Your task to perform on an android device: Toggle notifications for the Google Photos app Image 0: 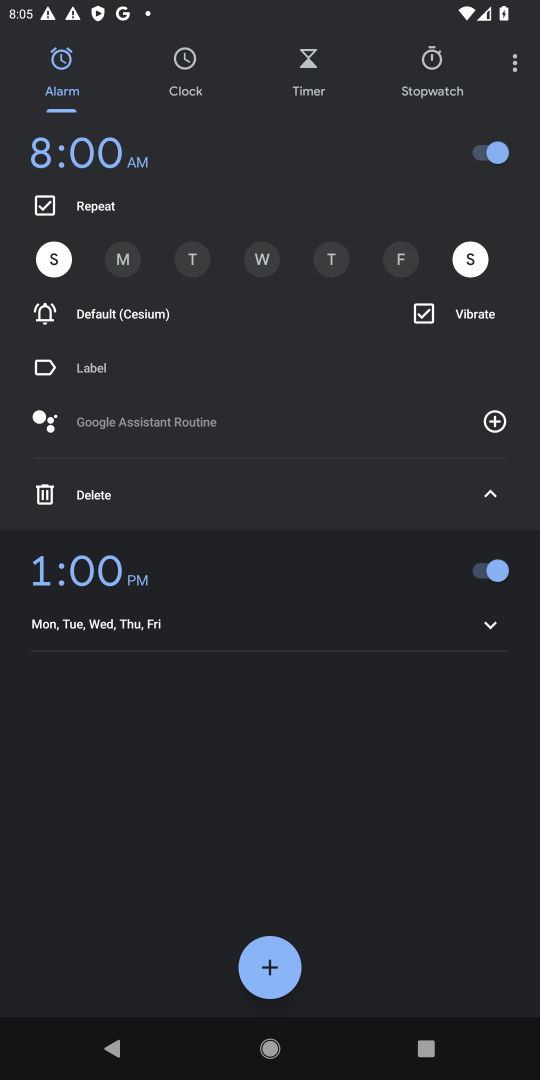
Step 0: press home button
Your task to perform on an android device: Toggle notifications for the Google Photos app Image 1: 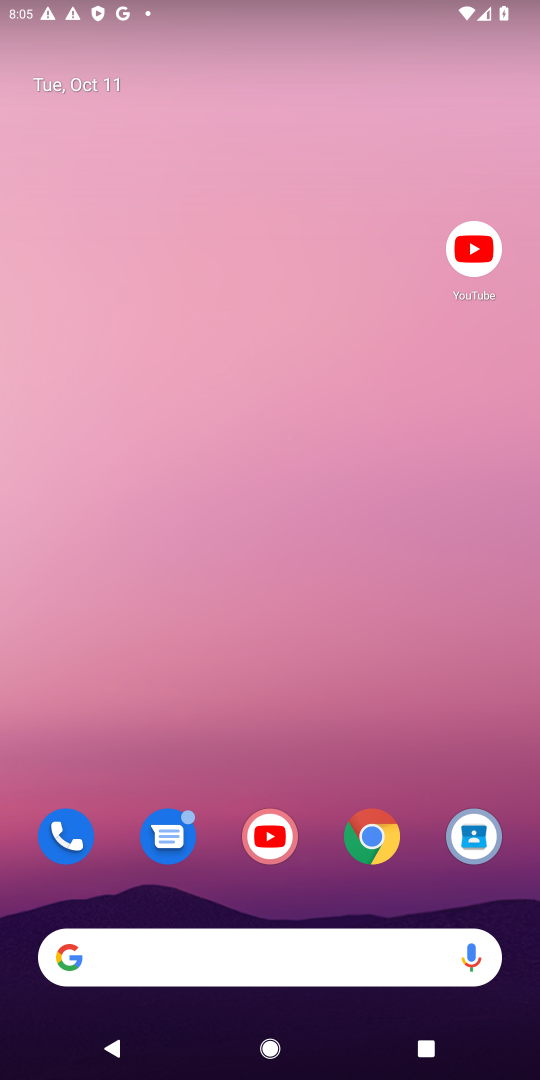
Step 1: drag from (332, 952) to (259, 120)
Your task to perform on an android device: Toggle notifications for the Google Photos app Image 2: 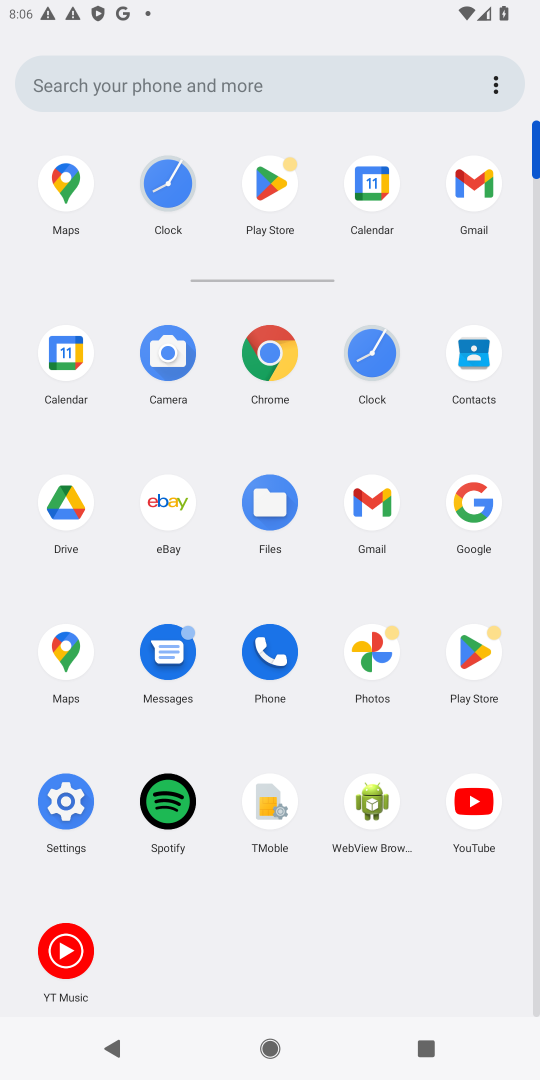
Step 2: click (372, 665)
Your task to perform on an android device: Toggle notifications for the Google Photos app Image 3: 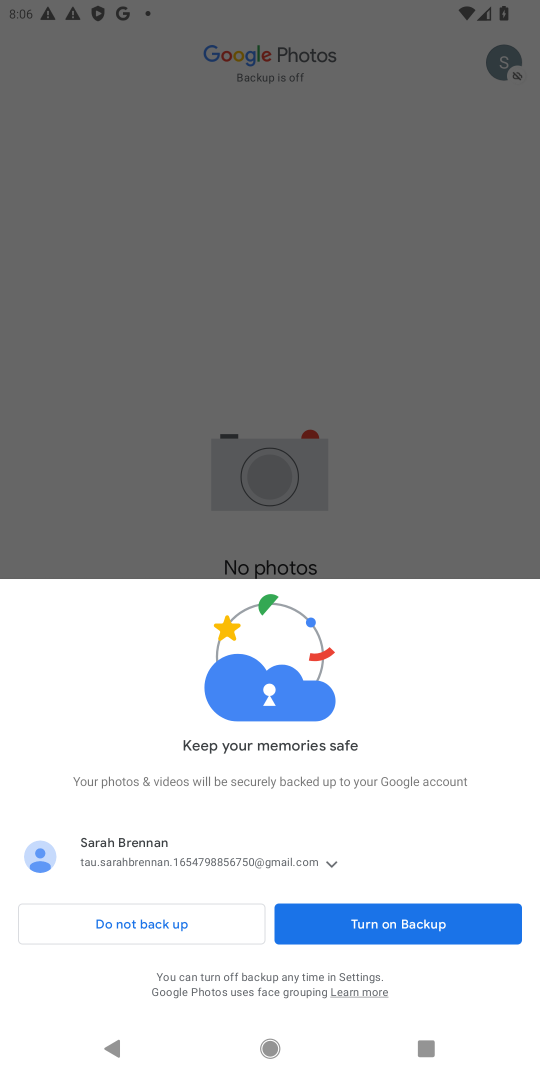
Step 3: click (437, 925)
Your task to perform on an android device: Toggle notifications for the Google Photos app Image 4: 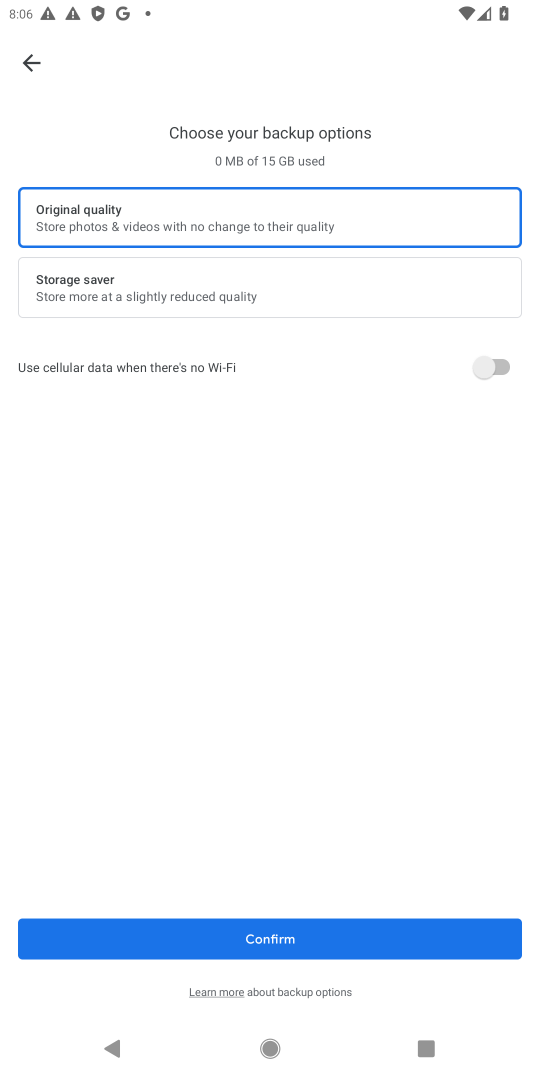
Step 4: click (272, 940)
Your task to perform on an android device: Toggle notifications for the Google Photos app Image 5: 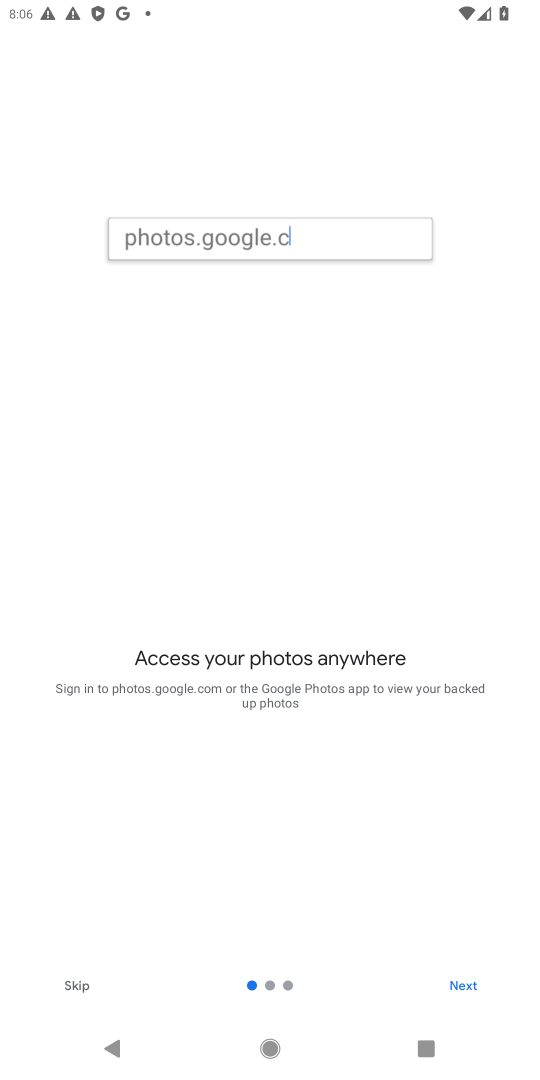
Step 5: click (460, 986)
Your task to perform on an android device: Toggle notifications for the Google Photos app Image 6: 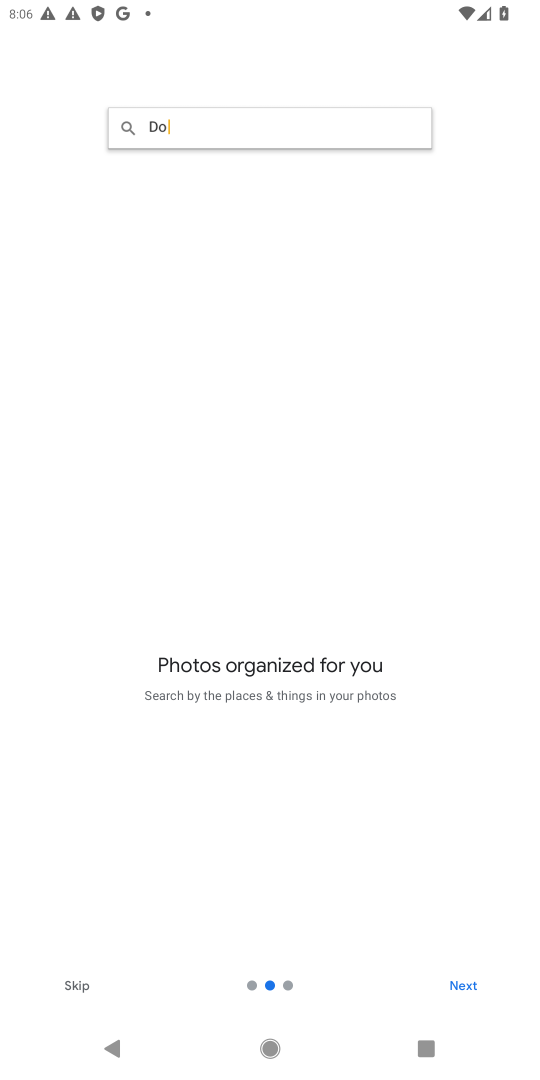
Step 6: click (460, 986)
Your task to perform on an android device: Toggle notifications for the Google Photos app Image 7: 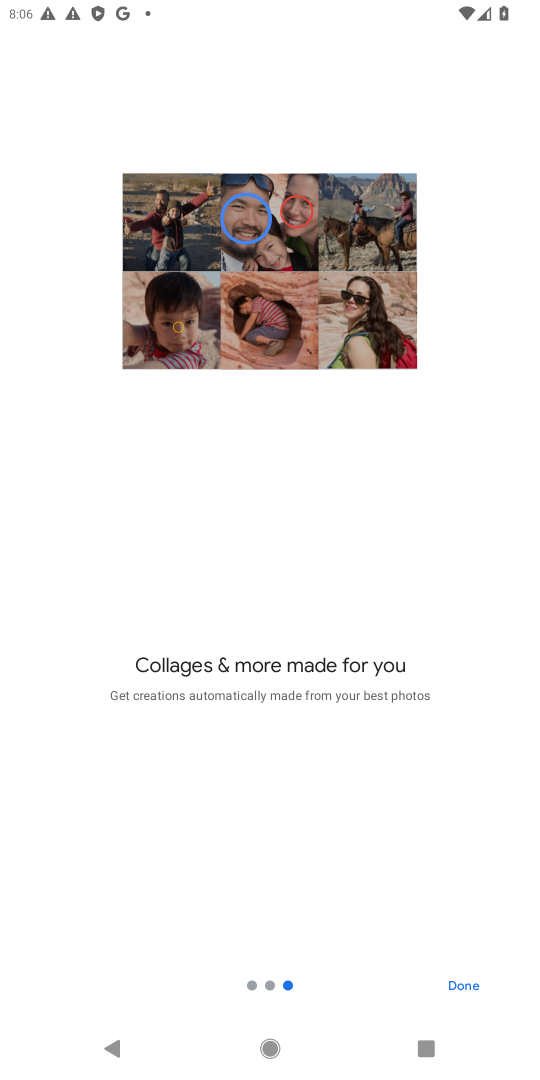
Step 7: click (460, 986)
Your task to perform on an android device: Toggle notifications for the Google Photos app Image 8: 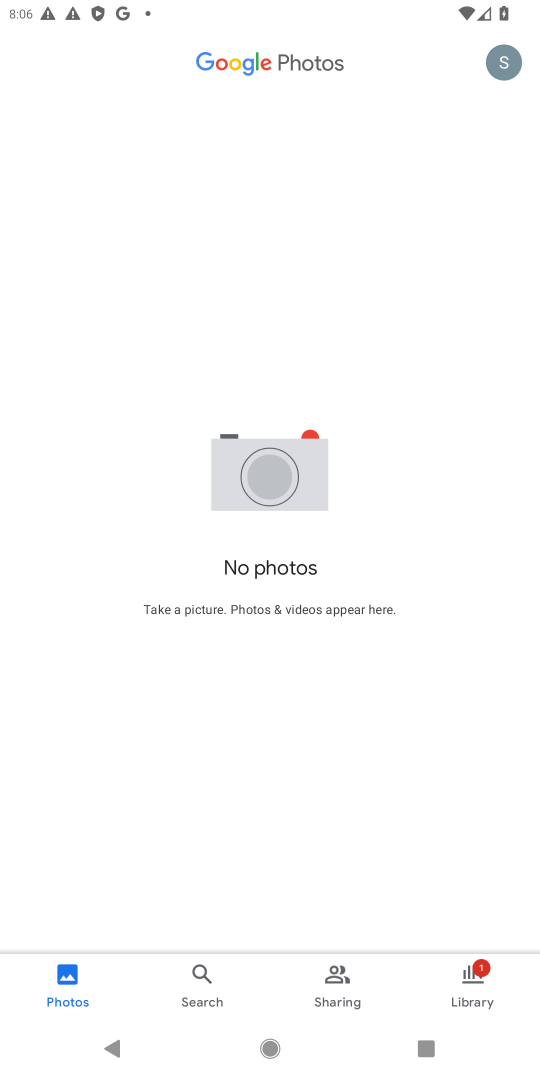
Step 8: click (500, 54)
Your task to perform on an android device: Toggle notifications for the Google Photos app Image 9: 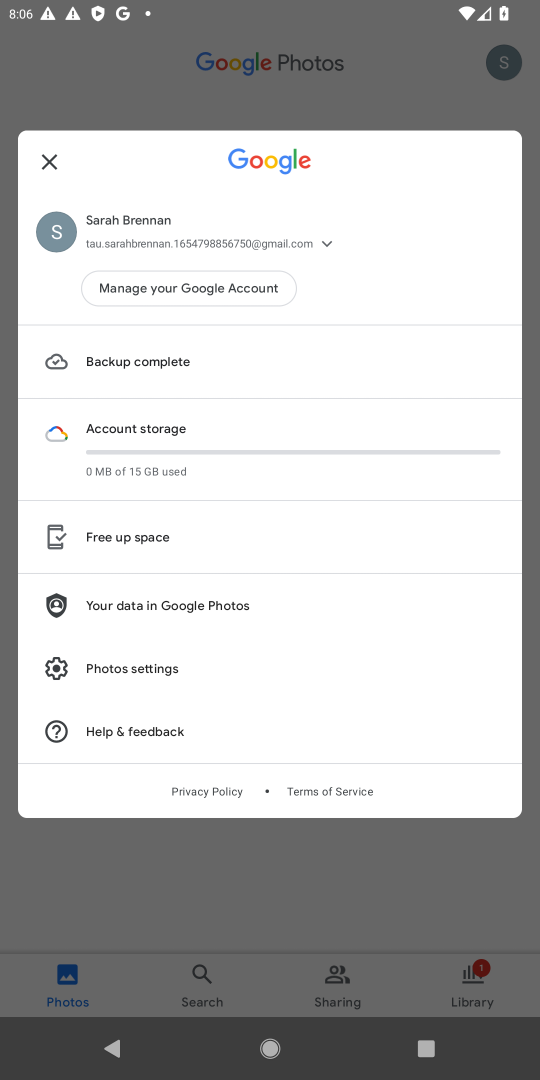
Step 9: click (136, 670)
Your task to perform on an android device: Toggle notifications for the Google Photos app Image 10: 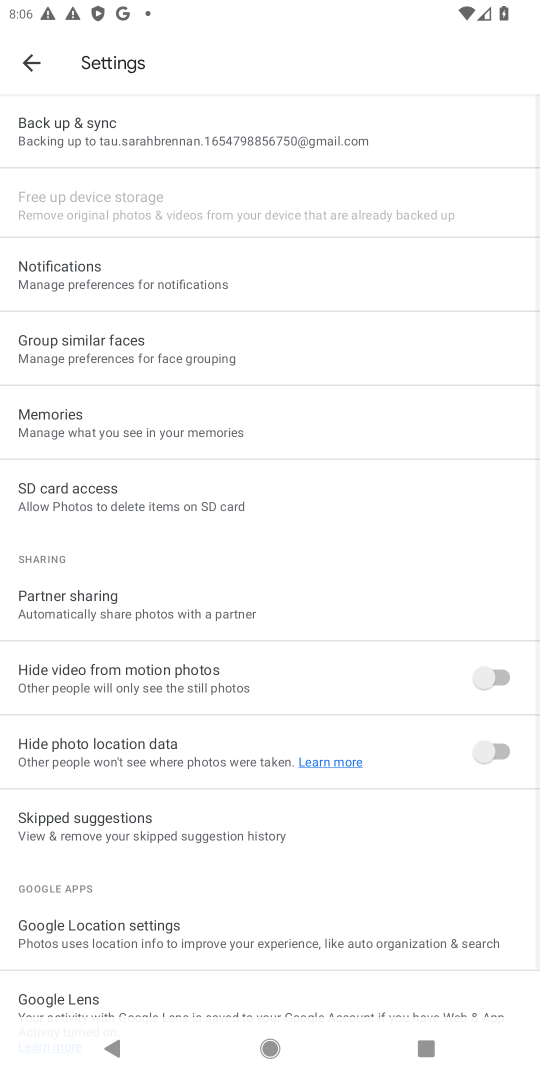
Step 10: click (90, 268)
Your task to perform on an android device: Toggle notifications for the Google Photos app Image 11: 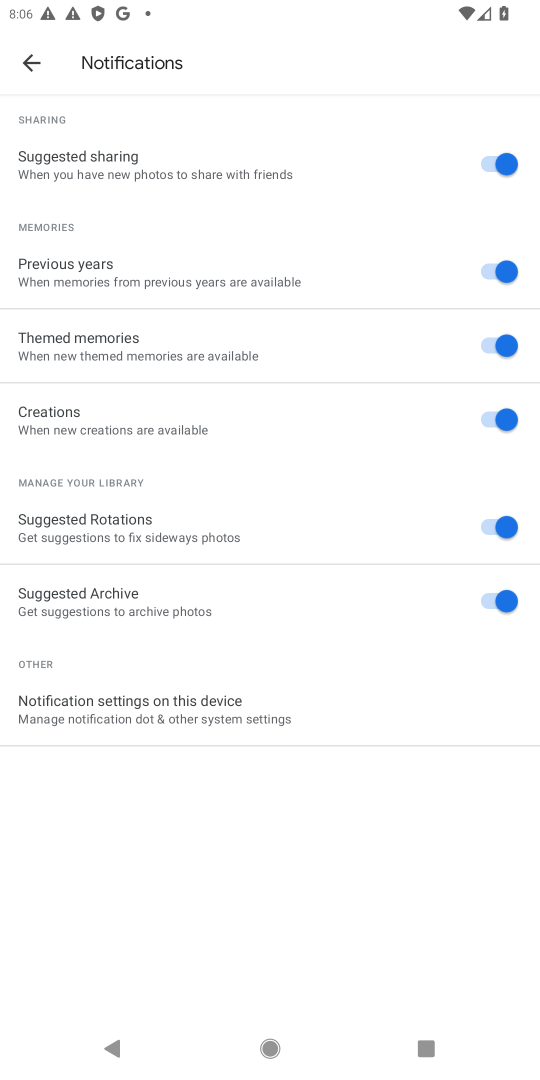
Step 11: click (217, 693)
Your task to perform on an android device: Toggle notifications for the Google Photos app Image 12: 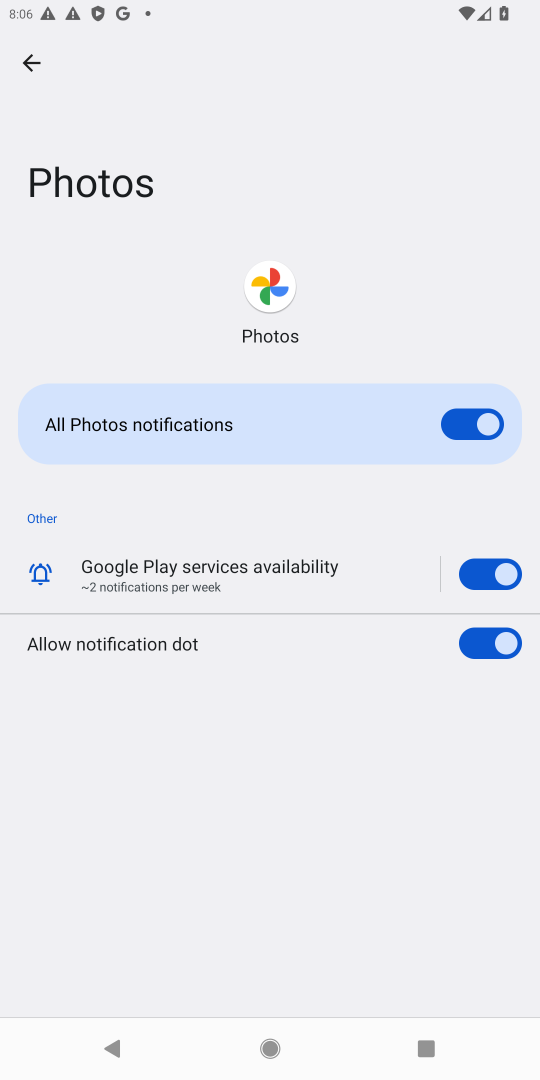
Step 12: click (446, 425)
Your task to perform on an android device: Toggle notifications for the Google Photos app Image 13: 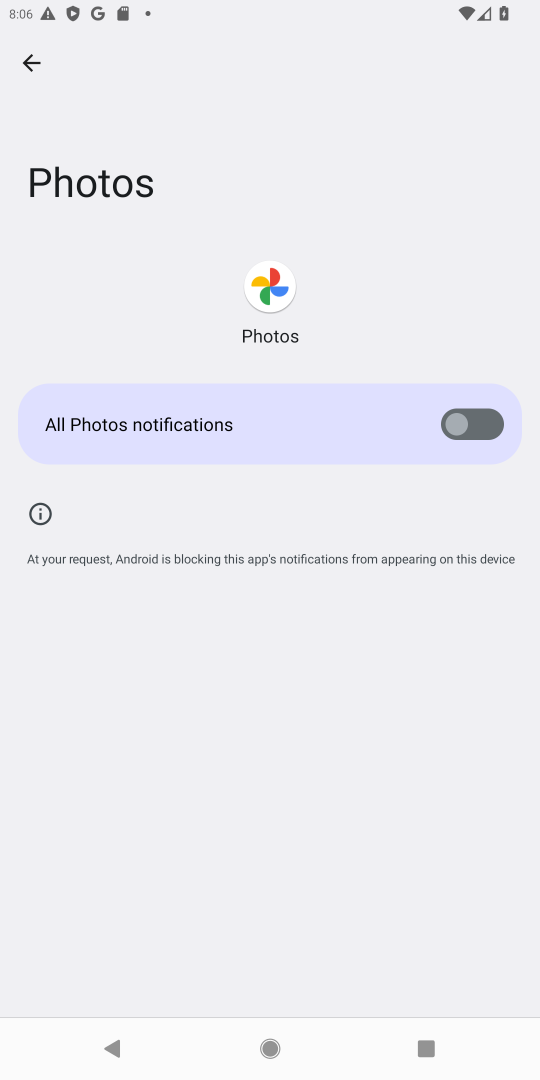
Step 13: task complete